Your task to perform on an android device: turn off smart reply in the gmail app Image 0: 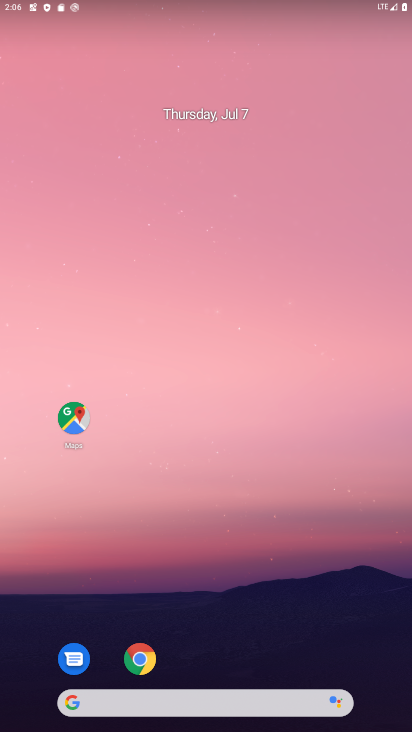
Step 0: drag from (245, 662) to (262, 131)
Your task to perform on an android device: turn off smart reply in the gmail app Image 1: 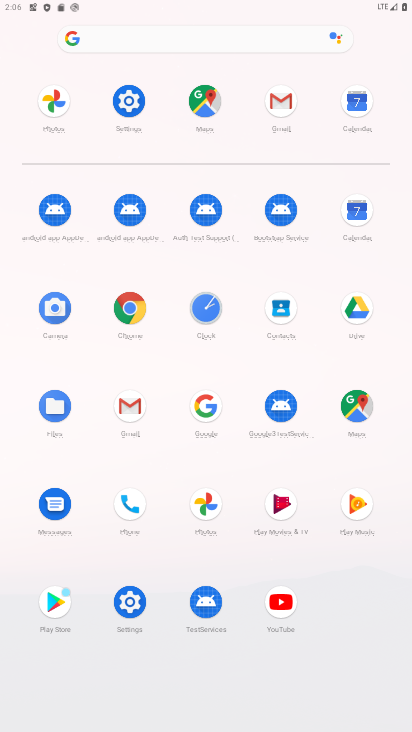
Step 1: click (282, 95)
Your task to perform on an android device: turn off smart reply in the gmail app Image 2: 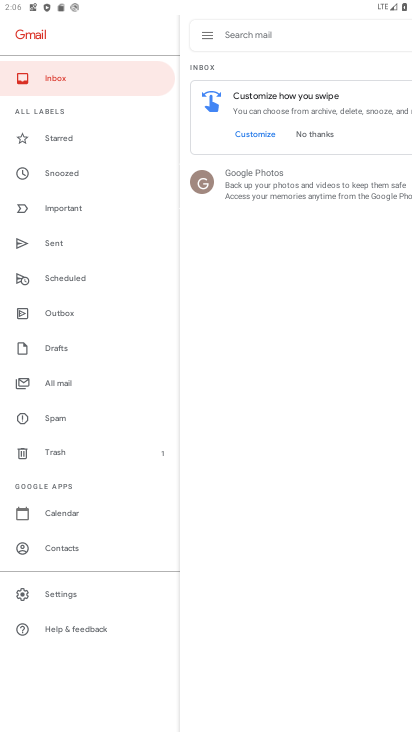
Step 2: click (54, 595)
Your task to perform on an android device: turn off smart reply in the gmail app Image 3: 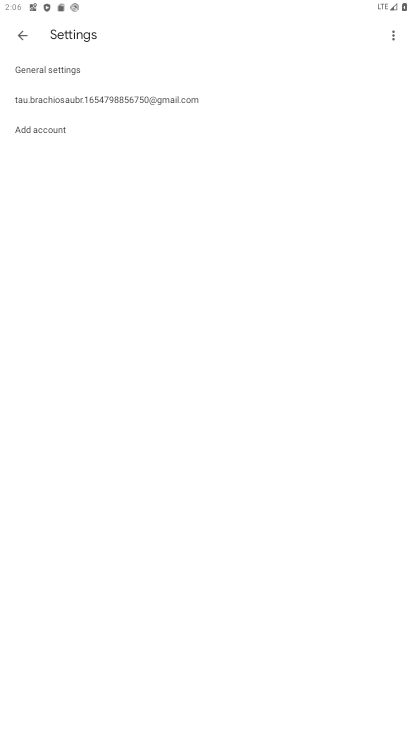
Step 3: click (164, 103)
Your task to perform on an android device: turn off smart reply in the gmail app Image 4: 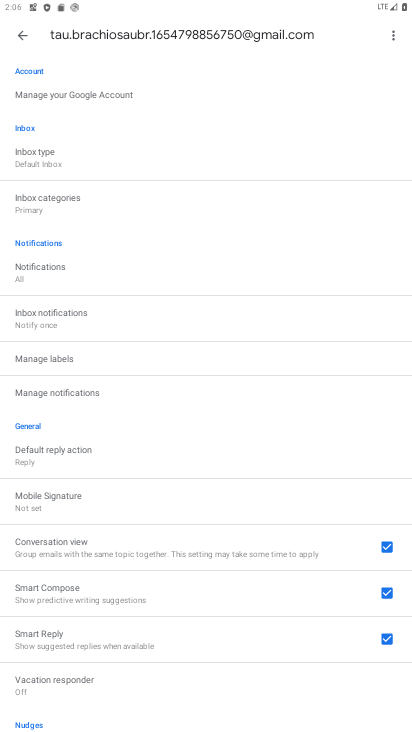
Step 4: drag from (100, 467) to (105, 398)
Your task to perform on an android device: turn off smart reply in the gmail app Image 5: 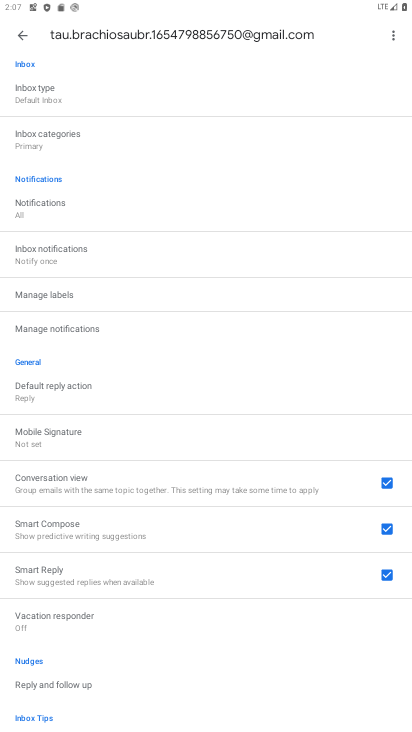
Step 5: click (387, 576)
Your task to perform on an android device: turn off smart reply in the gmail app Image 6: 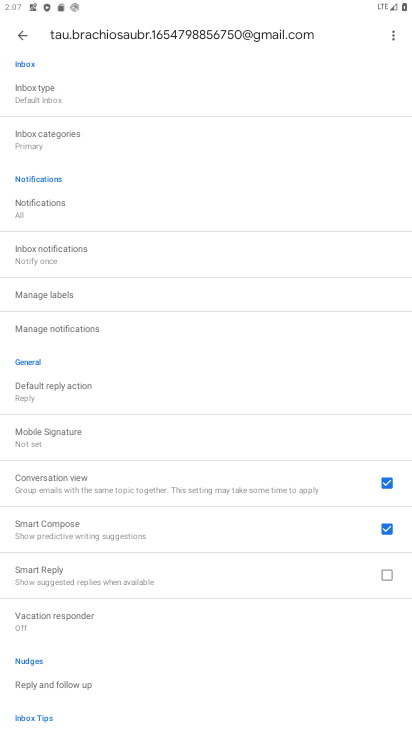
Step 6: task complete